Your task to perform on an android device: Toggle the flashlight Image 0: 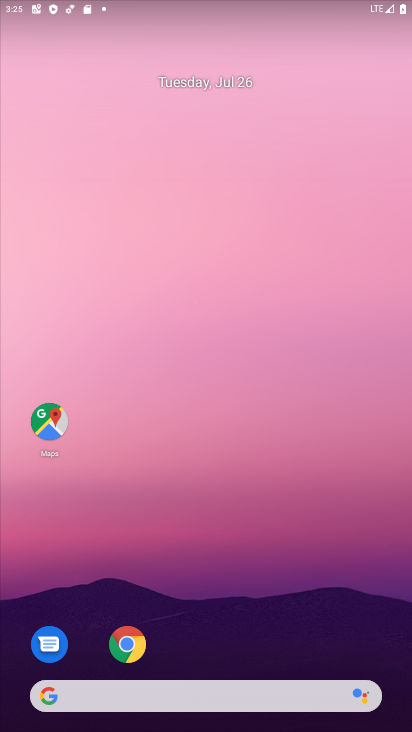
Step 0: drag from (245, 10) to (231, 489)
Your task to perform on an android device: Toggle the flashlight Image 1: 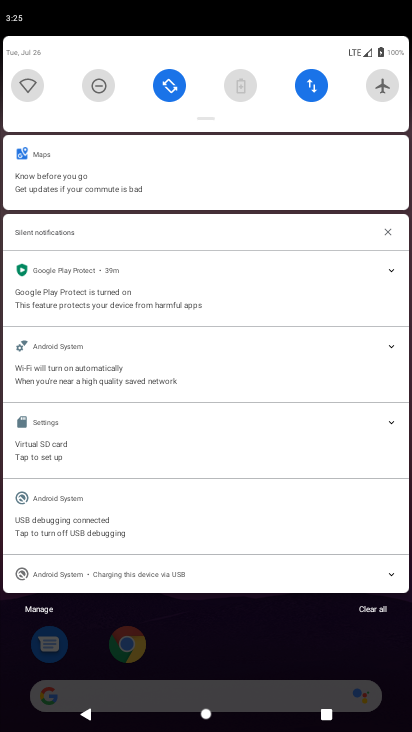
Step 1: drag from (163, 103) to (173, 524)
Your task to perform on an android device: Toggle the flashlight Image 2: 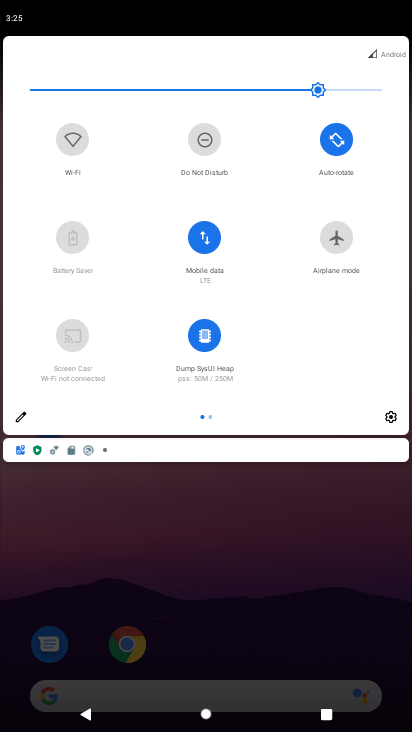
Step 2: drag from (341, 266) to (1, 355)
Your task to perform on an android device: Toggle the flashlight Image 3: 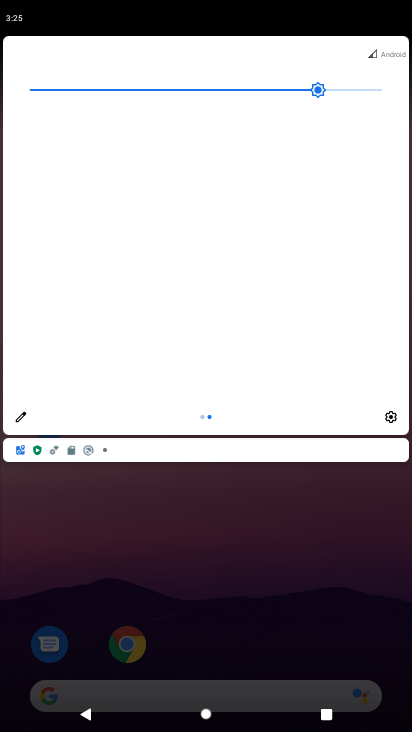
Step 3: click (16, 415)
Your task to perform on an android device: Toggle the flashlight Image 4: 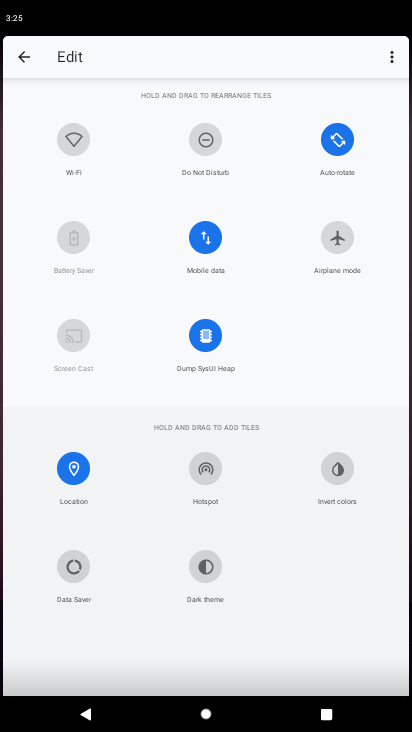
Step 4: task complete